Your task to perform on an android device: What's the weather today? Image 0: 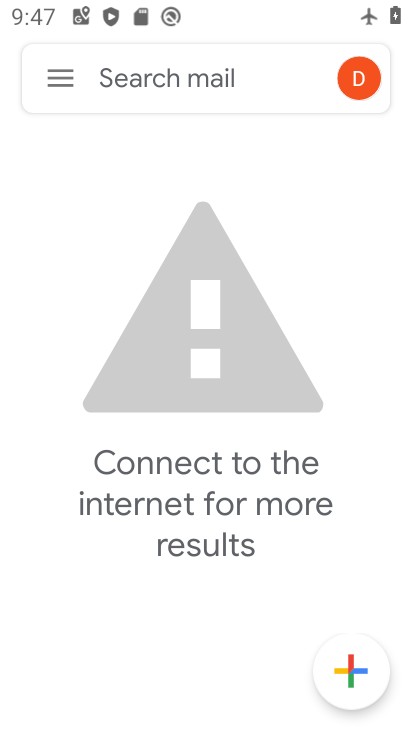
Step 0: press home button
Your task to perform on an android device: What's the weather today? Image 1: 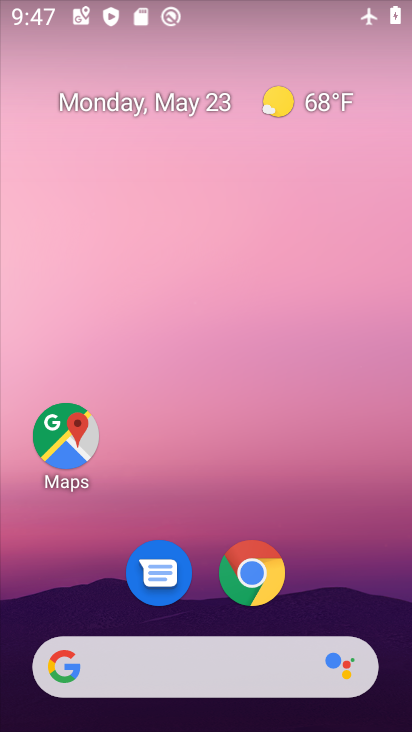
Step 1: drag from (257, 634) to (296, 150)
Your task to perform on an android device: What's the weather today? Image 2: 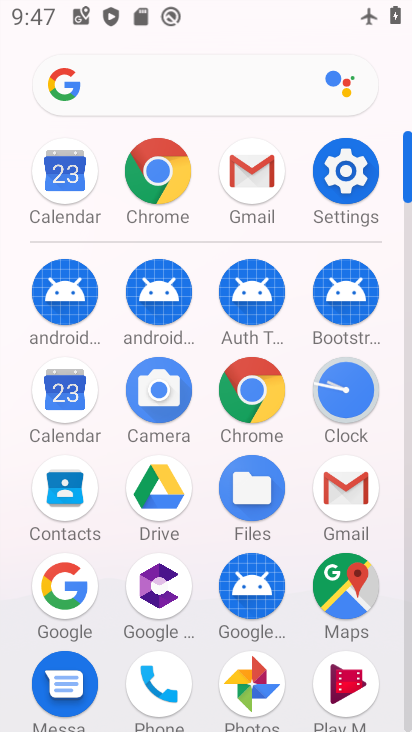
Step 2: click (60, 596)
Your task to perform on an android device: What's the weather today? Image 3: 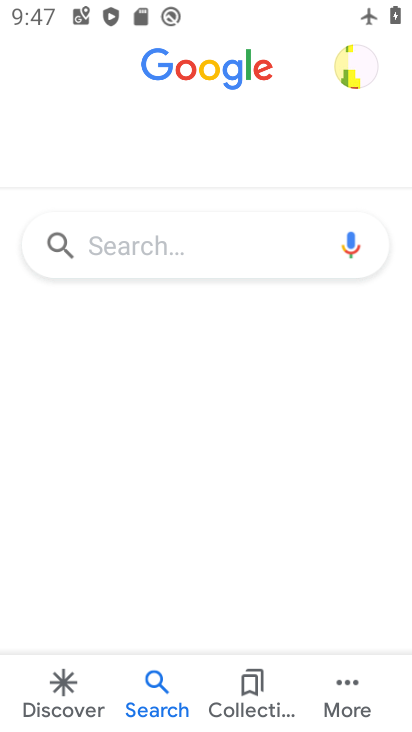
Step 3: click (189, 258)
Your task to perform on an android device: What's the weather today? Image 4: 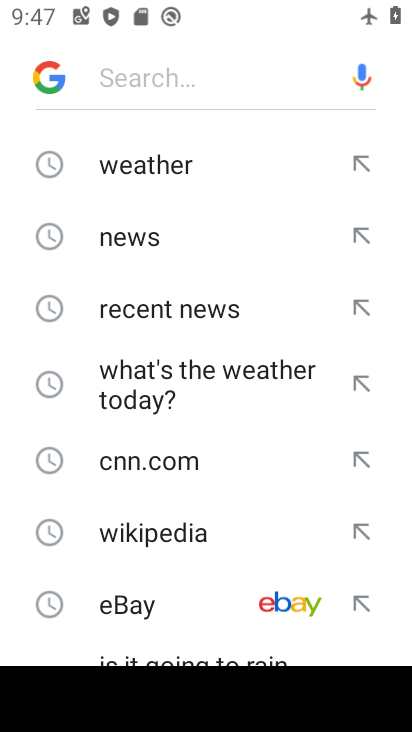
Step 4: click (201, 178)
Your task to perform on an android device: What's the weather today? Image 5: 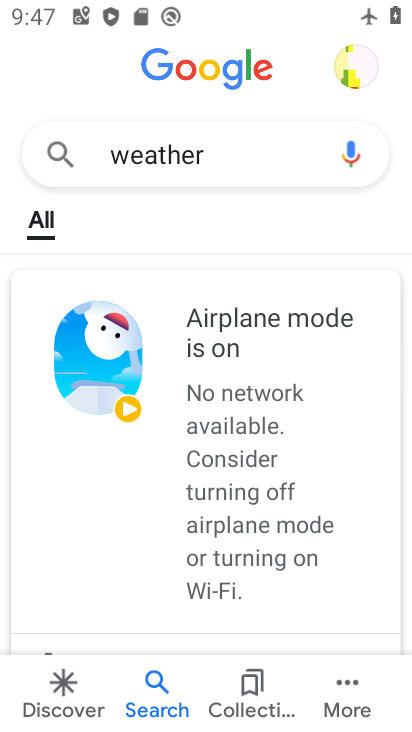
Step 5: task complete